Your task to perform on an android device: find photos in the google photos app Image 0: 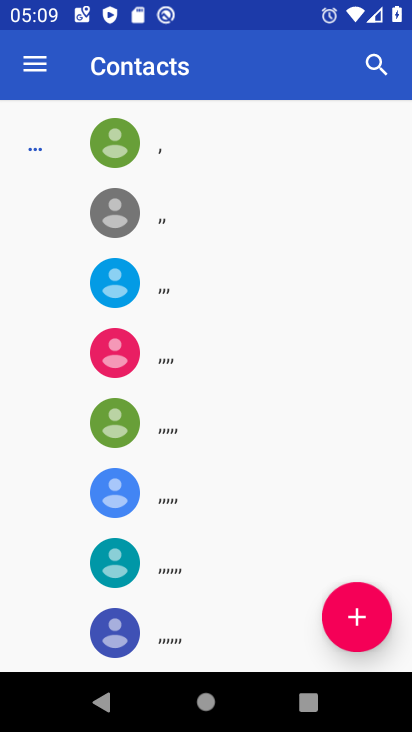
Step 0: press home button
Your task to perform on an android device: find photos in the google photos app Image 1: 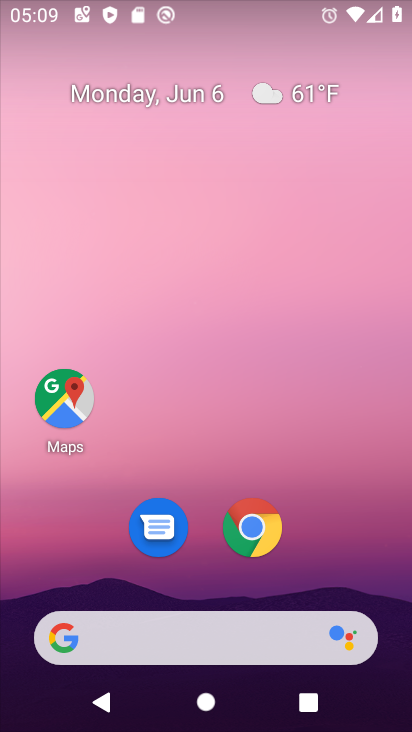
Step 1: drag from (389, 713) to (350, 94)
Your task to perform on an android device: find photos in the google photos app Image 2: 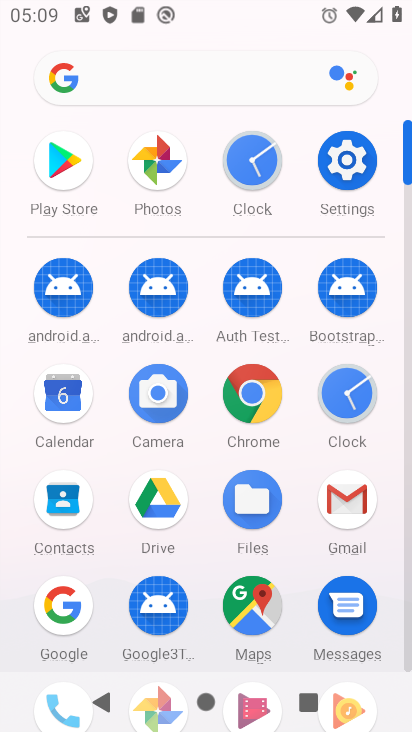
Step 2: drag from (216, 646) to (225, 309)
Your task to perform on an android device: find photos in the google photos app Image 3: 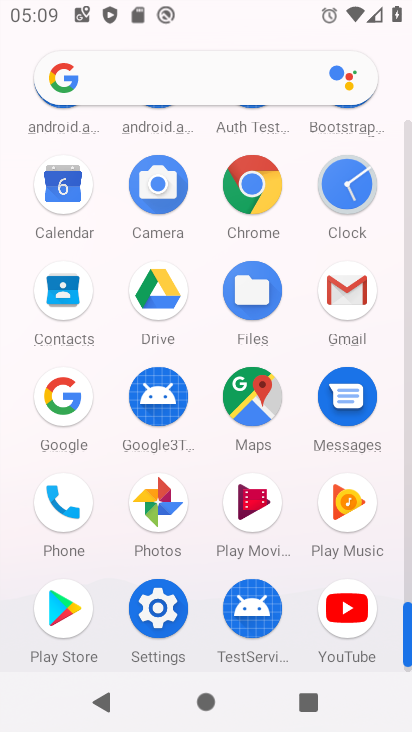
Step 3: click (154, 509)
Your task to perform on an android device: find photos in the google photos app Image 4: 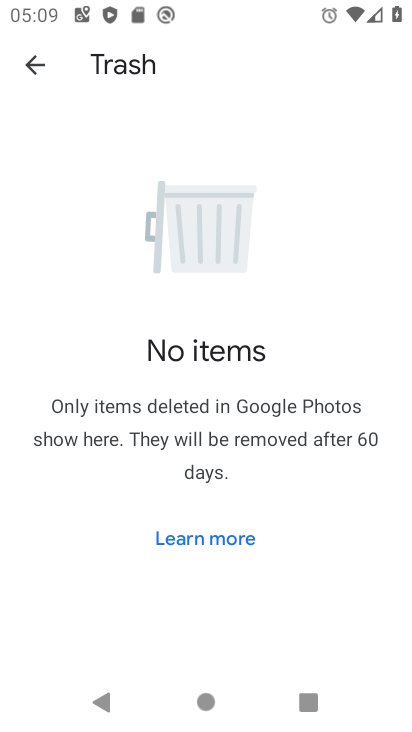
Step 4: task complete